Your task to perform on an android device: Empty the shopping cart on costco.com. Search for acer predator on costco.com, select the first entry, add it to the cart, then select checkout. Image 0: 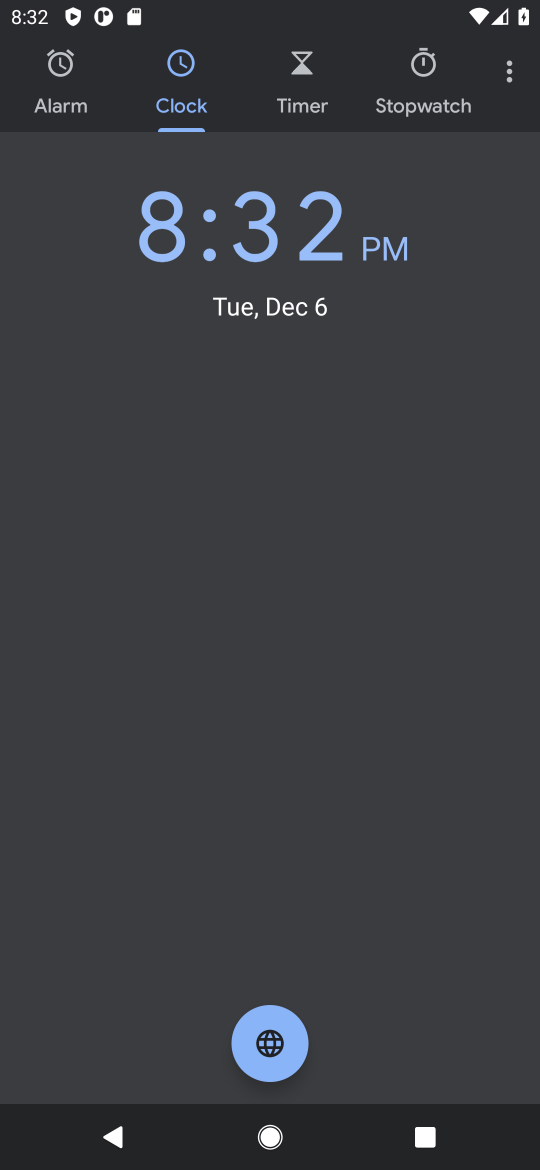
Step 0: press home button
Your task to perform on an android device: Empty the shopping cart on costco.com. Search for acer predator on costco.com, select the first entry, add it to the cart, then select checkout. Image 1: 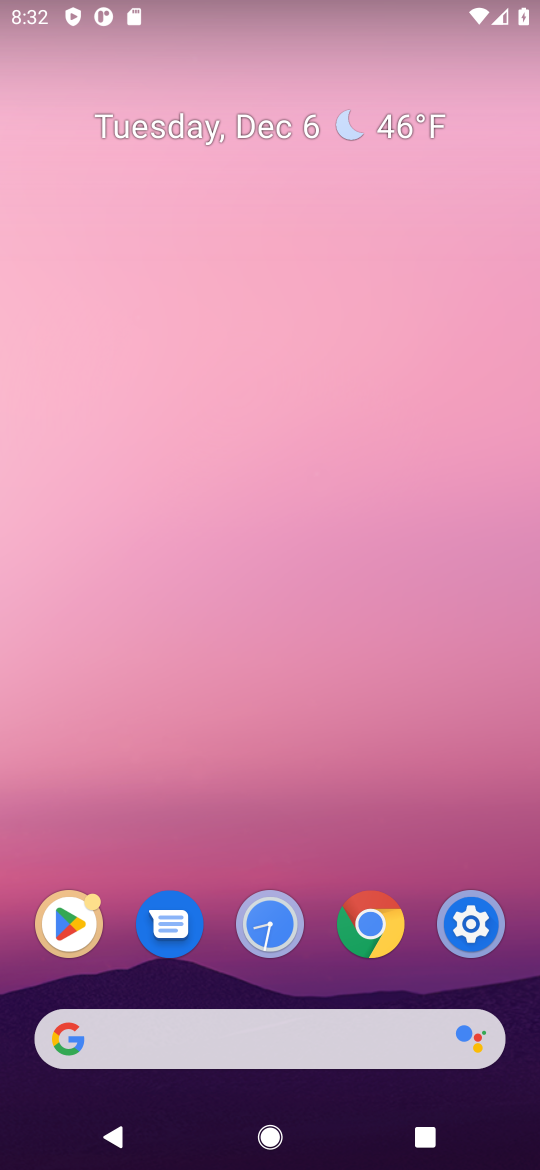
Step 1: click (220, 1022)
Your task to perform on an android device: Empty the shopping cart on costco.com. Search for acer predator on costco.com, select the first entry, add it to the cart, then select checkout. Image 2: 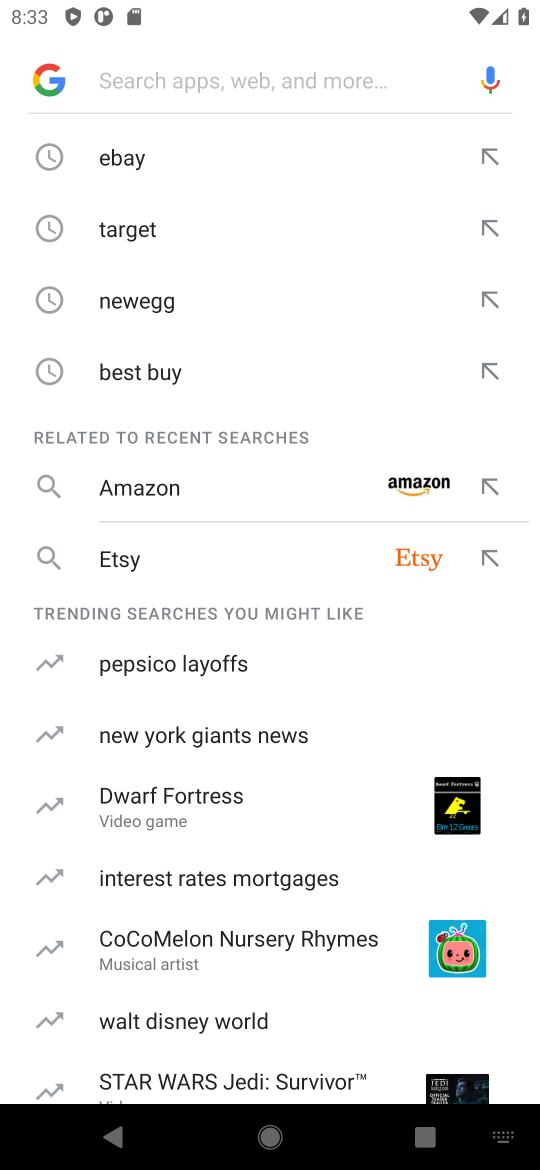
Step 2: type "costco"
Your task to perform on an android device: Empty the shopping cart on costco.com. Search for acer predator on costco.com, select the first entry, add it to the cart, then select checkout. Image 3: 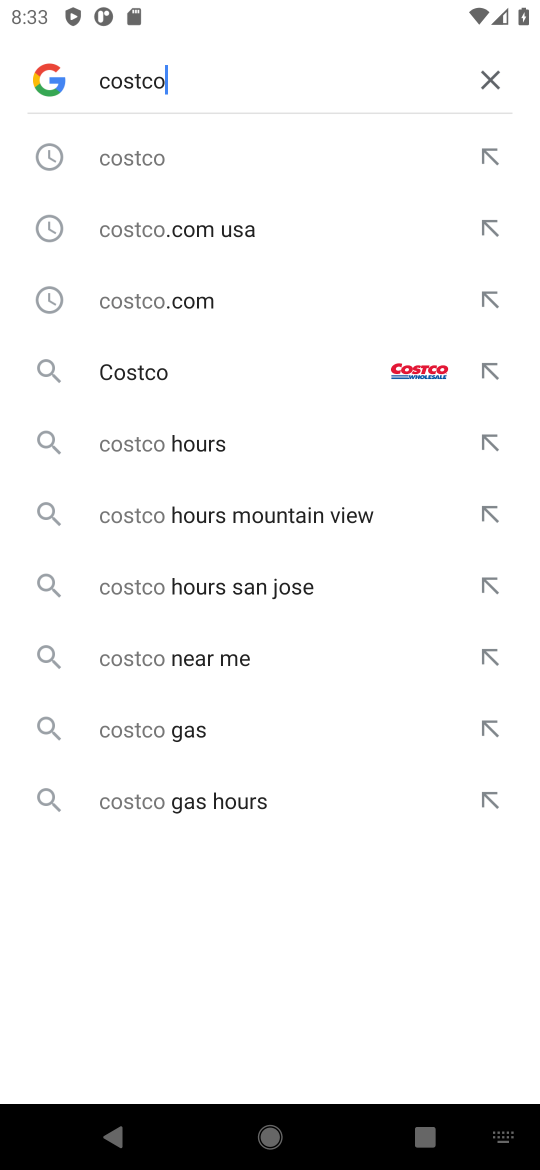
Step 3: click (178, 177)
Your task to perform on an android device: Empty the shopping cart on costco.com. Search for acer predator on costco.com, select the first entry, add it to the cart, then select checkout. Image 4: 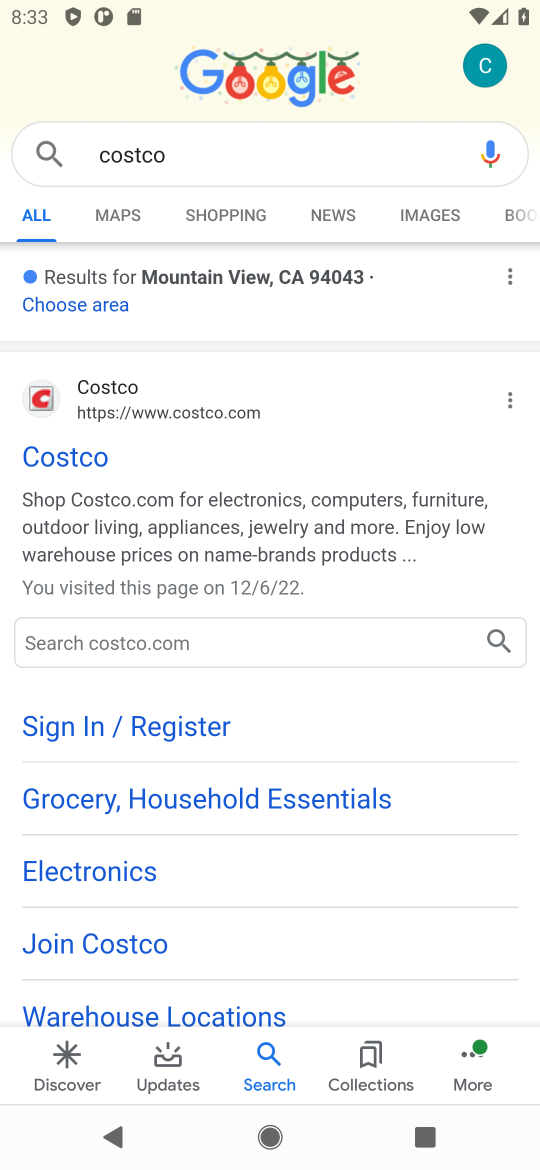
Step 4: click (135, 401)
Your task to perform on an android device: Empty the shopping cart on costco.com. Search for acer predator on costco.com, select the first entry, add it to the cart, then select checkout. Image 5: 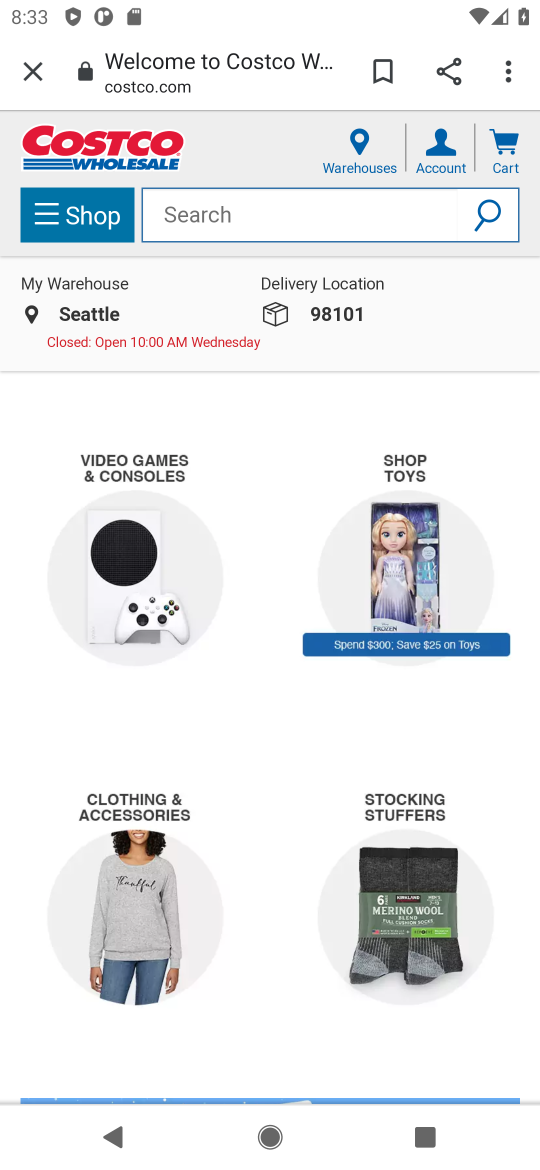
Step 5: click (229, 194)
Your task to perform on an android device: Empty the shopping cart on costco.com. Search for acer predator on costco.com, select the first entry, add it to the cart, then select checkout. Image 6: 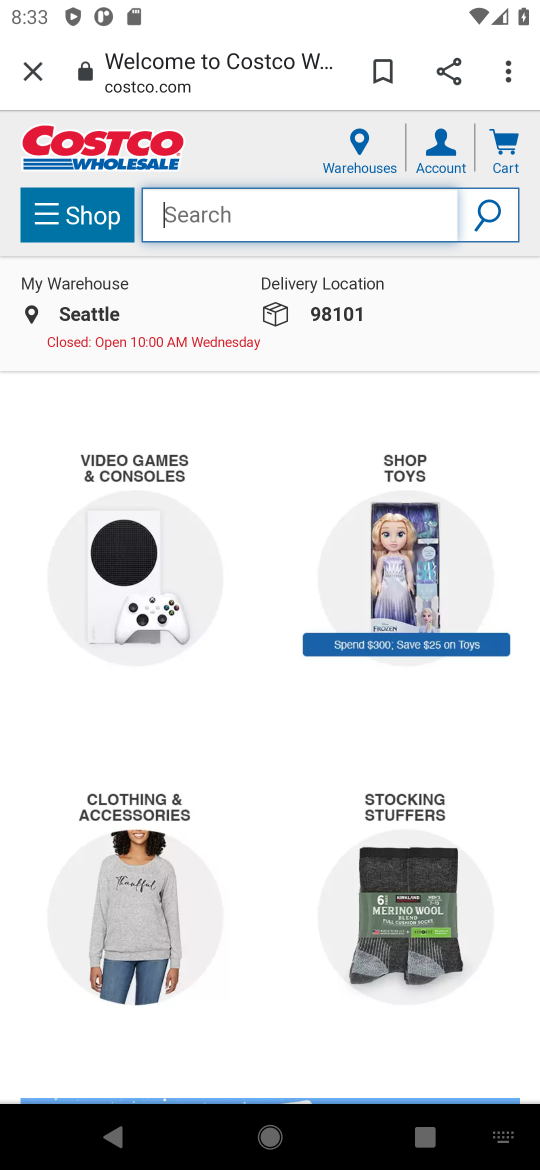
Step 6: type "acer predator"
Your task to perform on an android device: Empty the shopping cart on costco.com. Search for acer predator on costco.com, select the first entry, add it to the cart, then select checkout. Image 7: 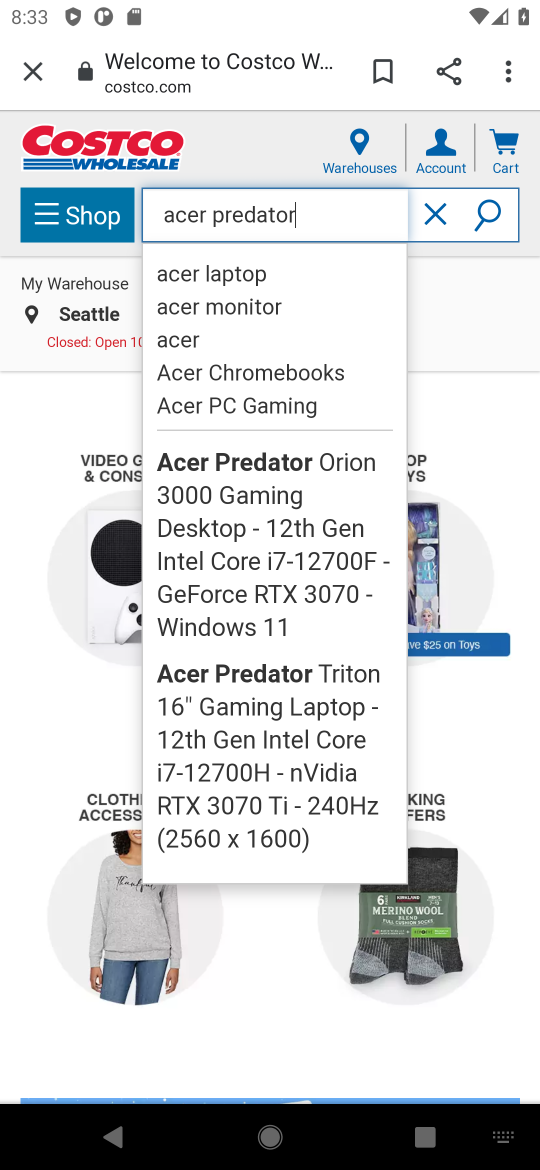
Step 7: click (242, 260)
Your task to perform on an android device: Empty the shopping cart on costco.com. Search for acer predator on costco.com, select the first entry, add it to the cart, then select checkout. Image 8: 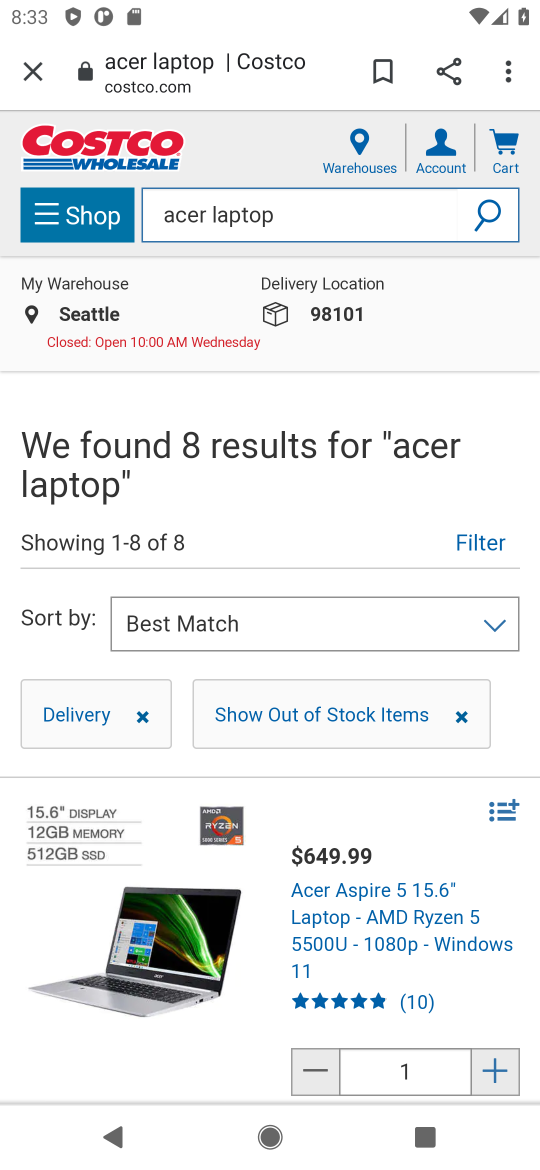
Step 8: drag from (243, 1012) to (226, 732)
Your task to perform on an android device: Empty the shopping cart on costco.com. Search for acer predator on costco.com, select the first entry, add it to the cart, then select checkout. Image 9: 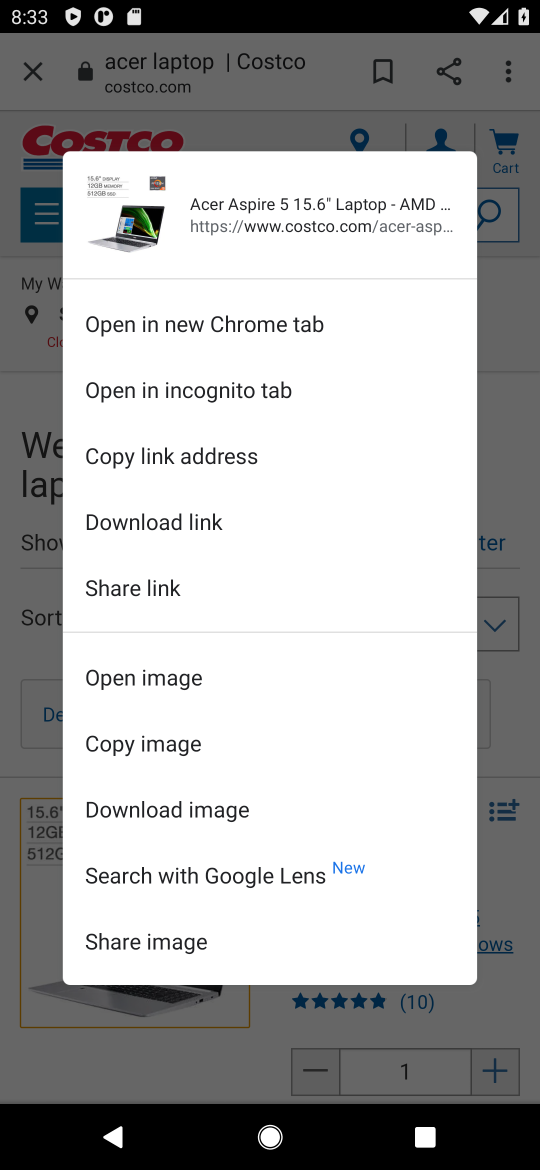
Step 9: click (210, 1026)
Your task to perform on an android device: Empty the shopping cart on costco.com. Search for acer predator on costco.com, select the first entry, add it to the cart, then select checkout. Image 10: 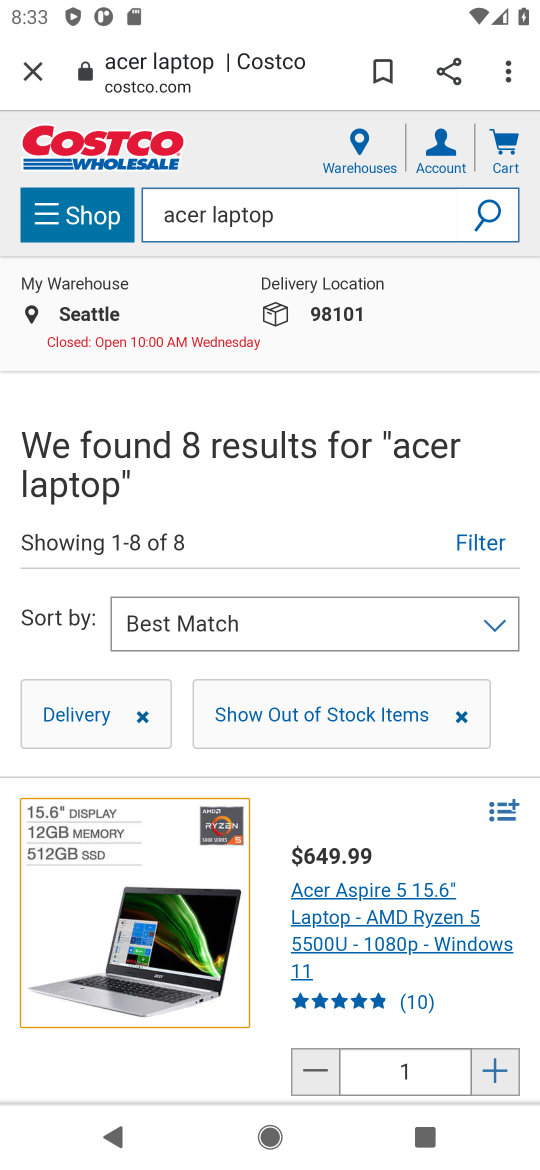
Step 10: drag from (283, 1030) to (273, 596)
Your task to perform on an android device: Empty the shopping cart on costco.com. Search for acer predator on costco.com, select the first entry, add it to the cart, then select checkout. Image 11: 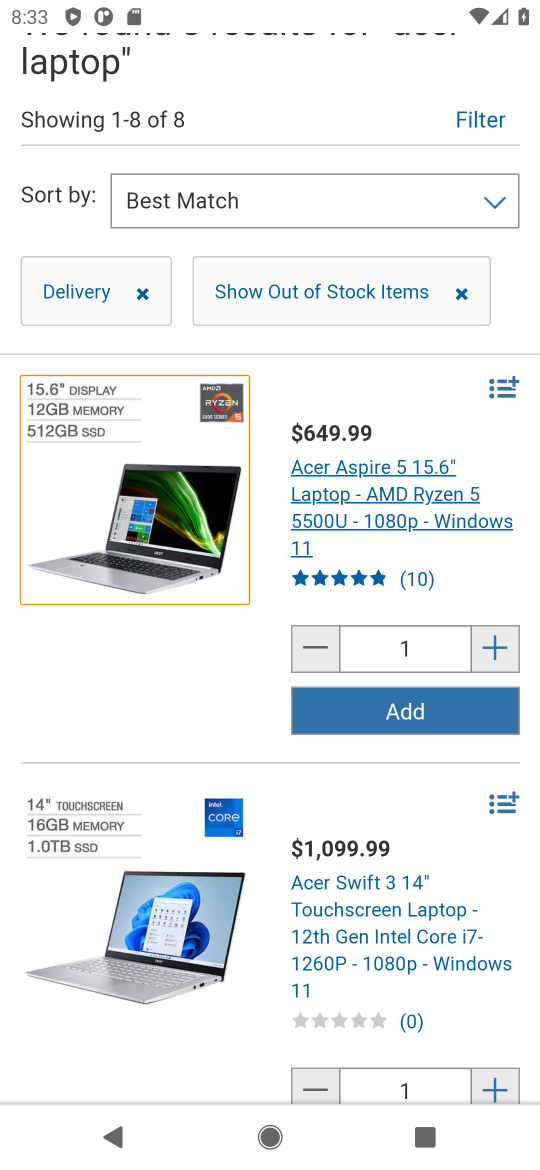
Step 11: click (404, 715)
Your task to perform on an android device: Empty the shopping cart on costco.com. Search for acer predator on costco.com, select the first entry, add it to the cart, then select checkout. Image 12: 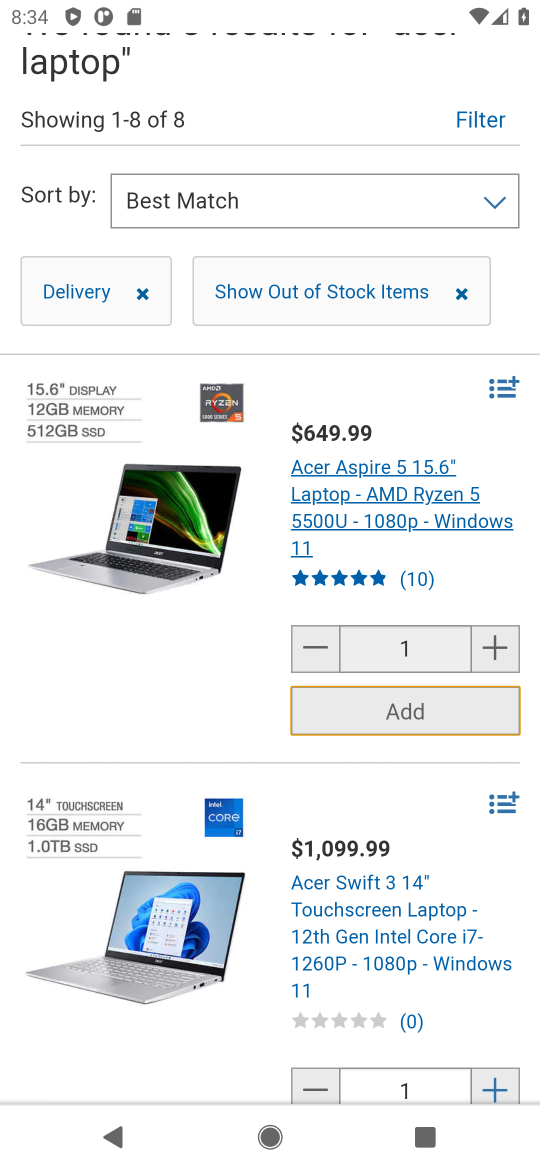
Step 12: task complete